Your task to perform on an android device: Go to Reddit.com Image 0: 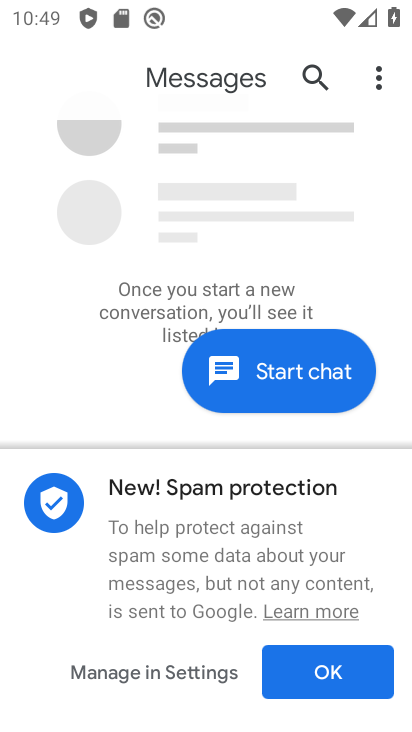
Step 0: task complete